Your task to perform on an android device: change the clock display to digital Image 0: 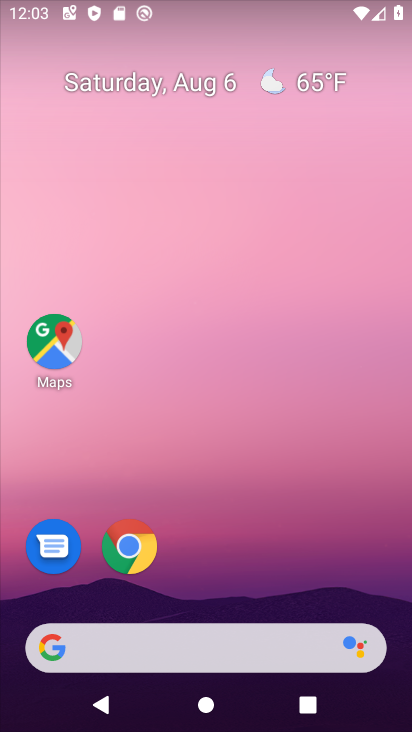
Step 0: drag from (200, 566) to (142, 4)
Your task to perform on an android device: change the clock display to digital Image 1: 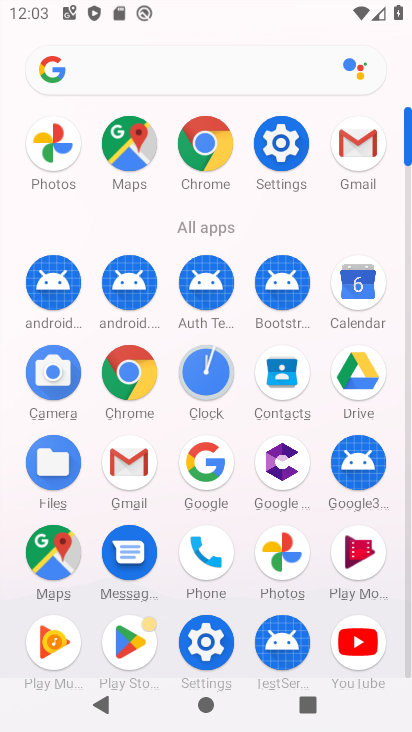
Step 1: click (292, 150)
Your task to perform on an android device: change the clock display to digital Image 2: 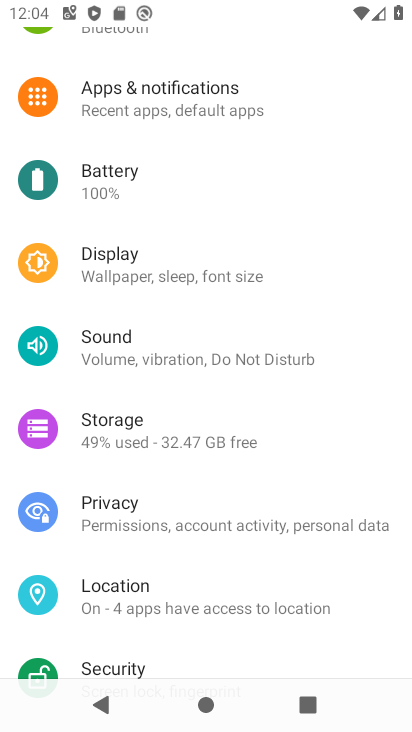
Step 2: press home button
Your task to perform on an android device: change the clock display to digital Image 3: 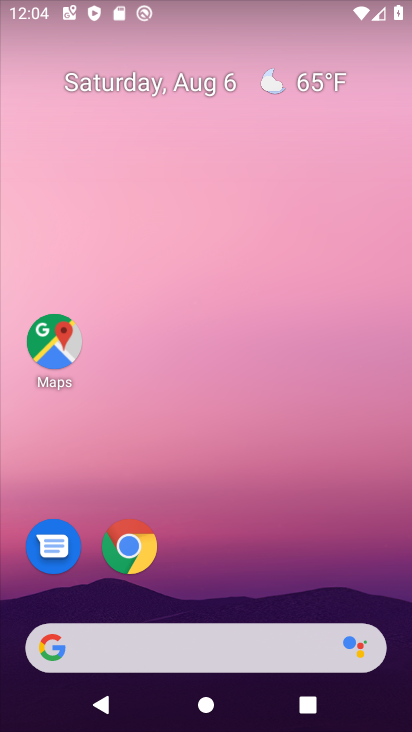
Step 3: drag from (255, 530) to (271, 18)
Your task to perform on an android device: change the clock display to digital Image 4: 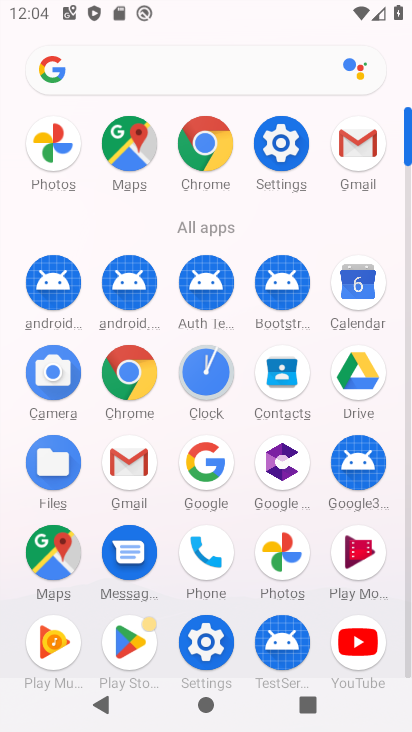
Step 4: click (212, 376)
Your task to perform on an android device: change the clock display to digital Image 5: 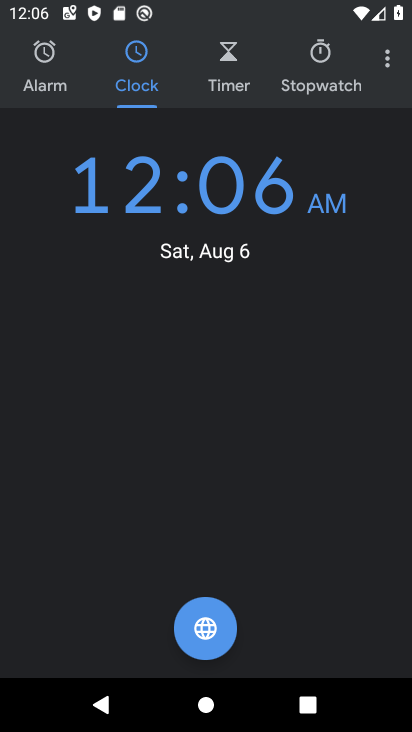
Step 5: click (389, 67)
Your task to perform on an android device: change the clock display to digital Image 6: 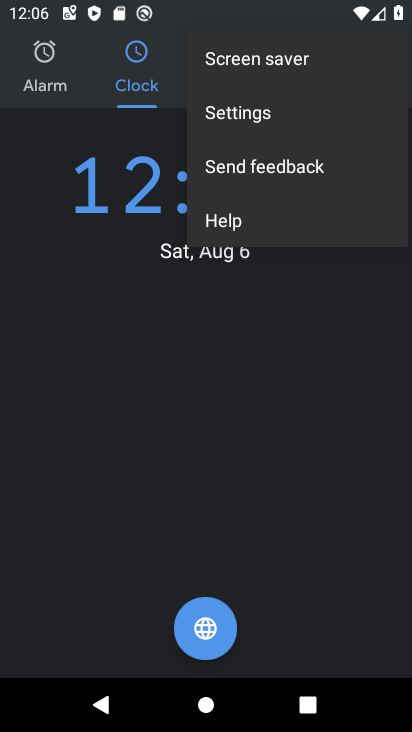
Step 6: click (258, 117)
Your task to perform on an android device: change the clock display to digital Image 7: 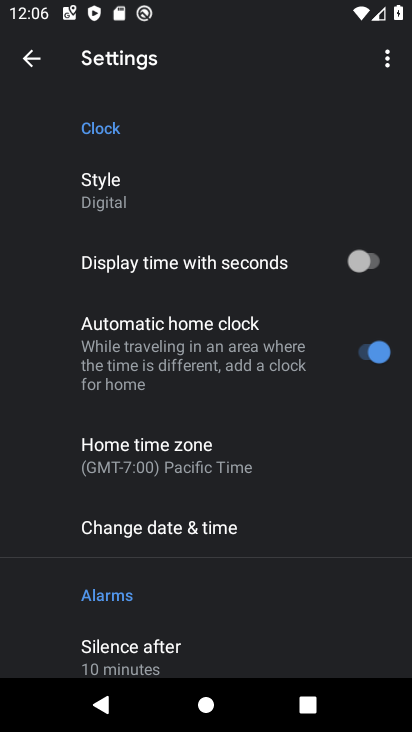
Step 7: task complete